Your task to perform on an android device: change notification settings in the gmail app Image 0: 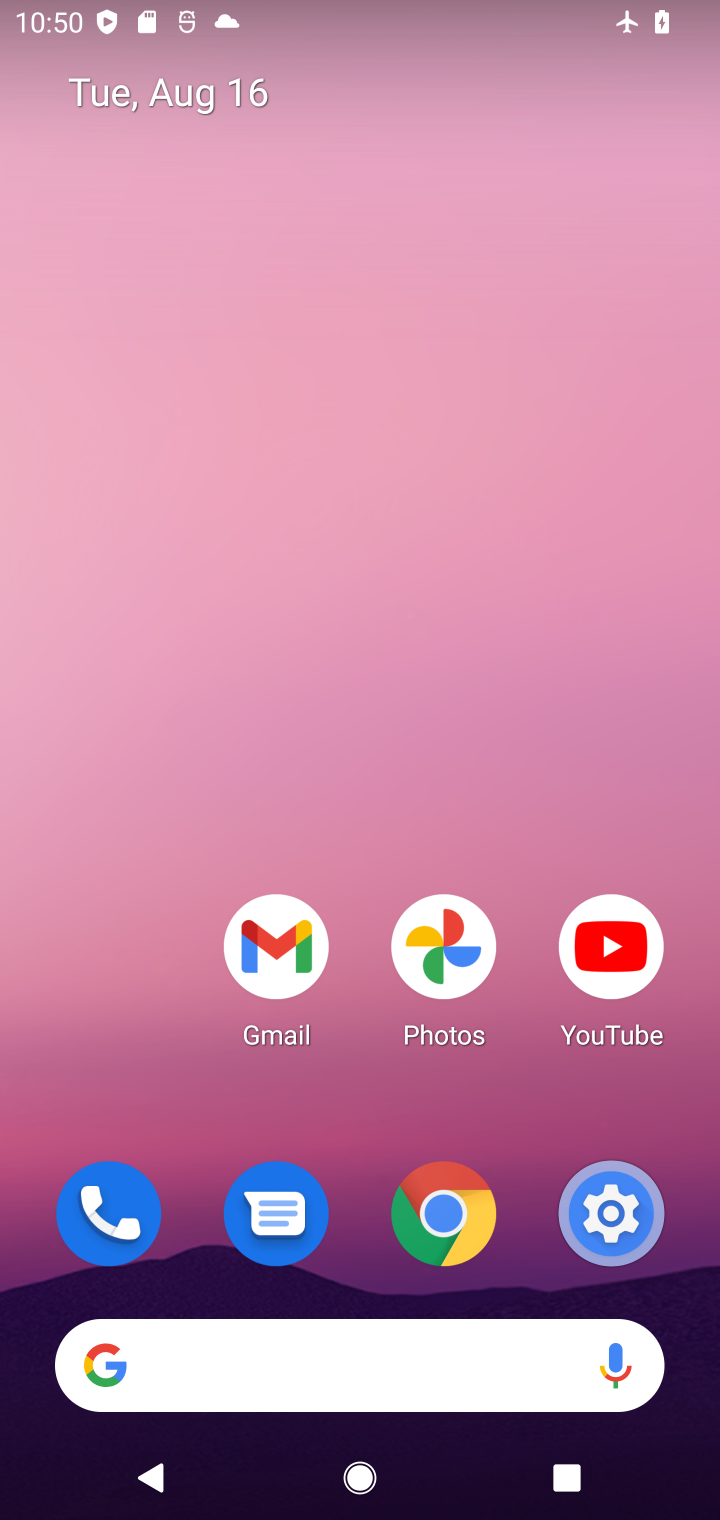
Step 0: drag from (381, 1307) to (347, 192)
Your task to perform on an android device: change notification settings in the gmail app Image 1: 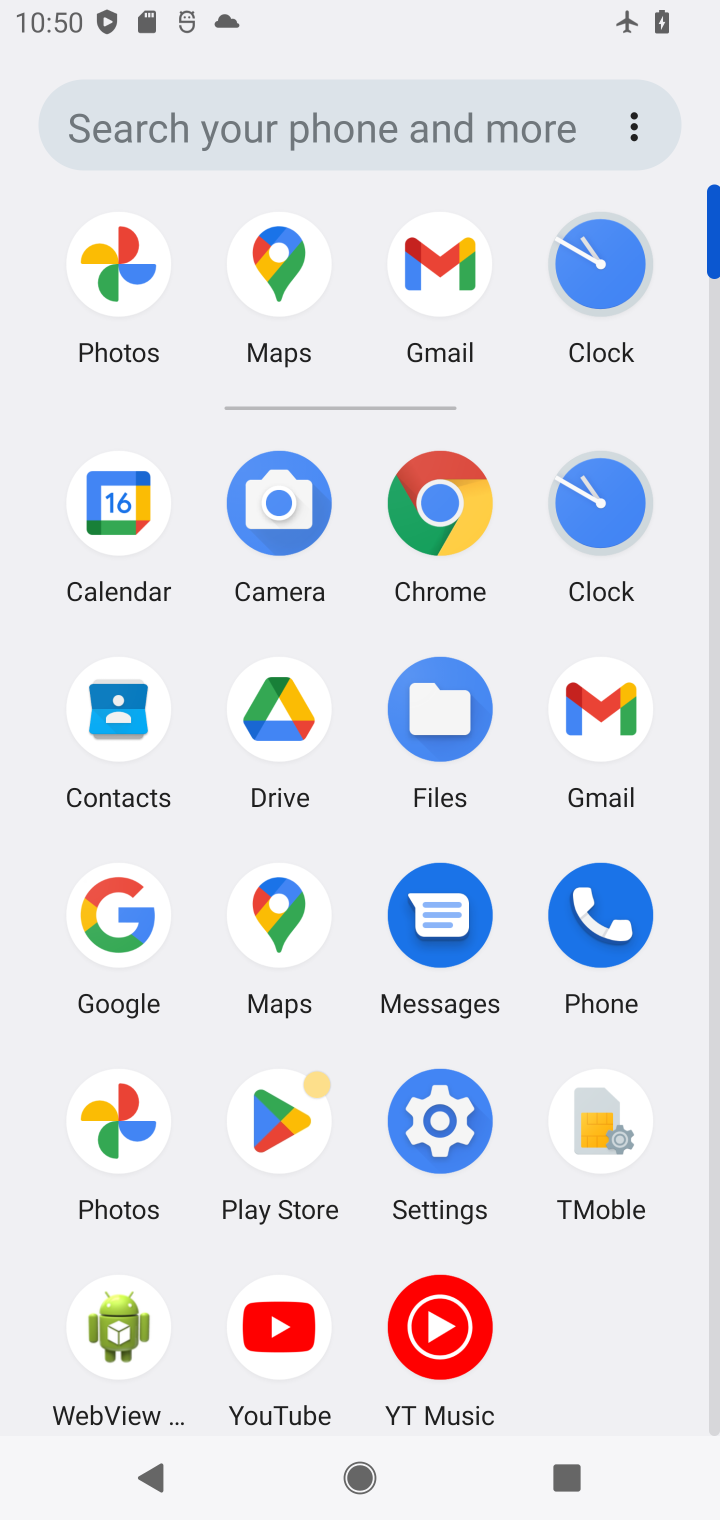
Step 1: click (436, 252)
Your task to perform on an android device: change notification settings in the gmail app Image 2: 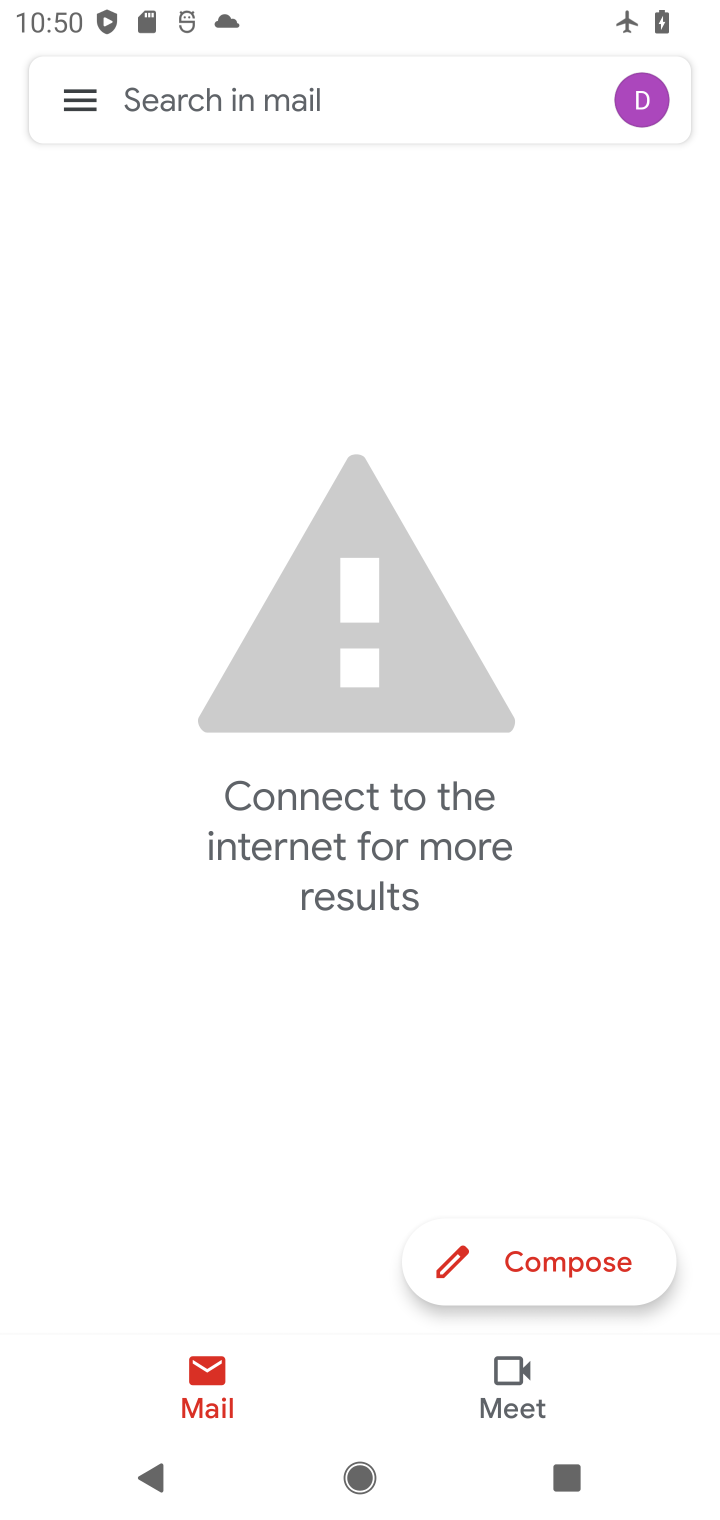
Step 2: click (55, 99)
Your task to perform on an android device: change notification settings in the gmail app Image 3: 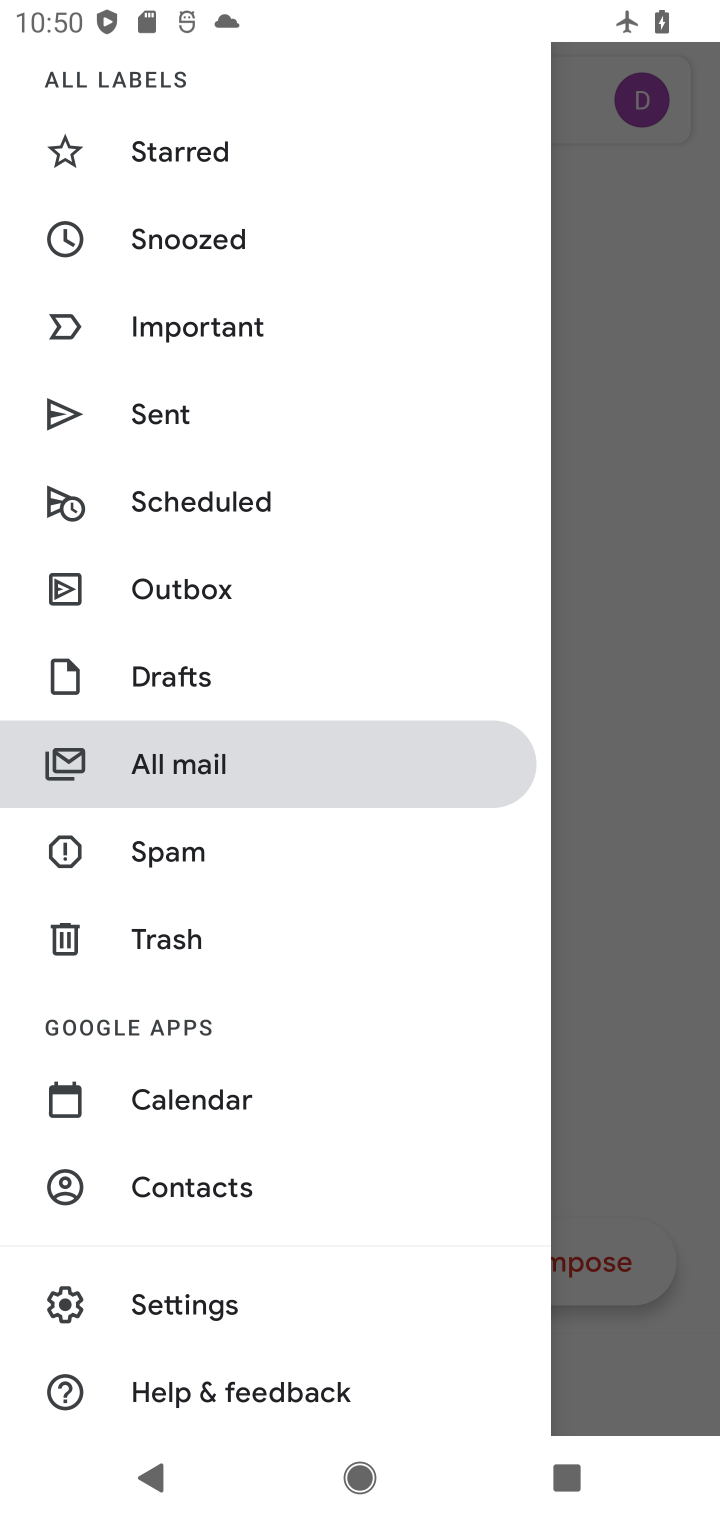
Step 3: click (194, 1272)
Your task to perform on an android device: change notification settings in the gmail app Image 4: 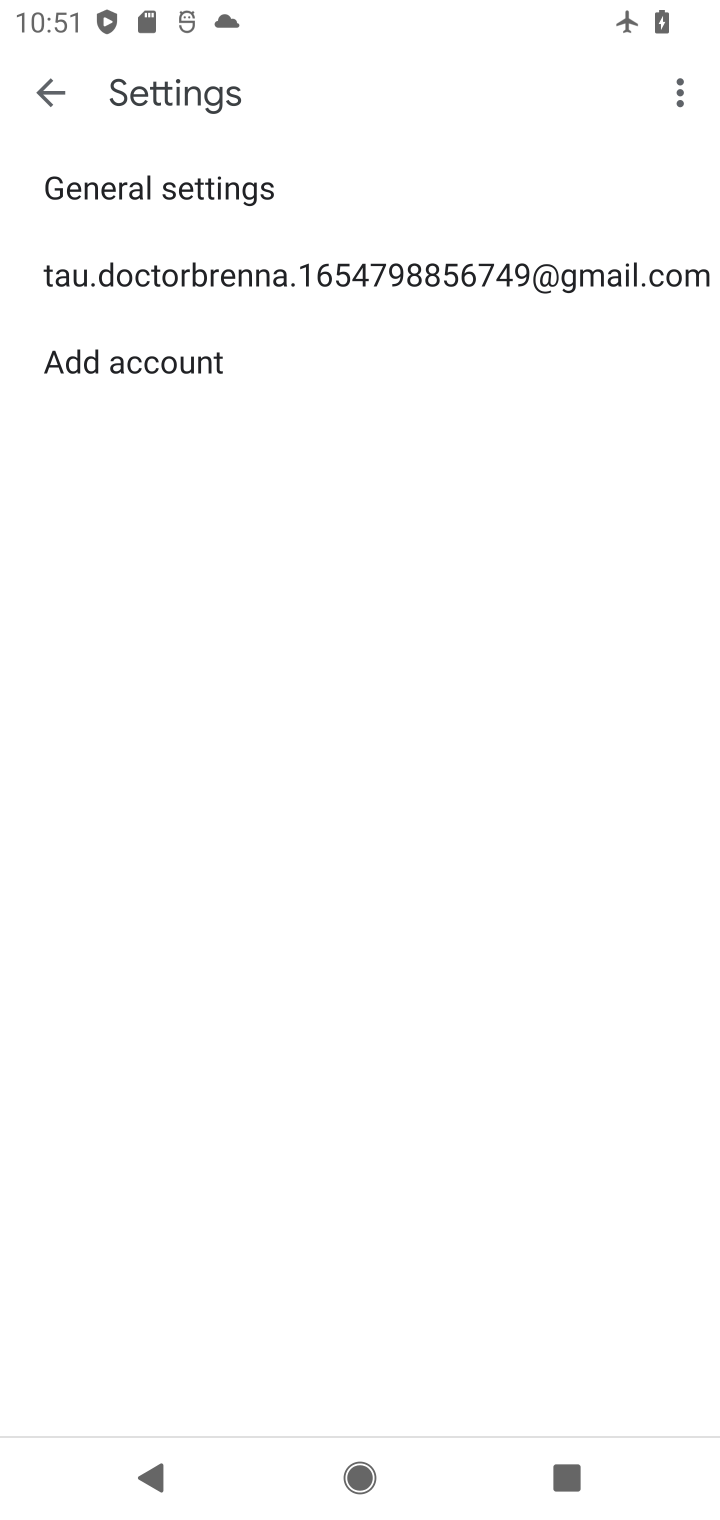
Step 4: click (256, 269)
Your task to perform on an android device: change notification settings in the gmail app Image 5: 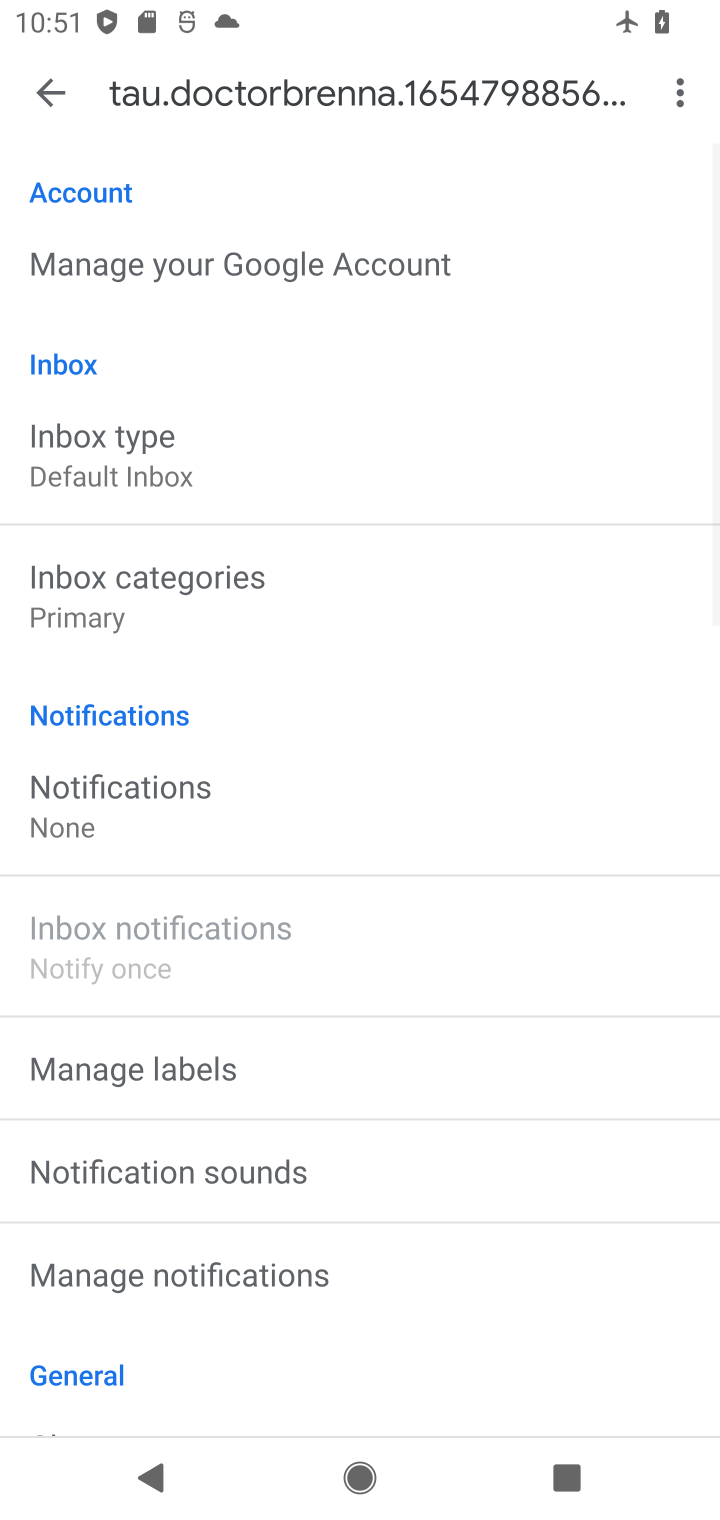
Step 5: click (86, 819)
Your task to perform on an android device: change notification settings in the gmail app Image 6: 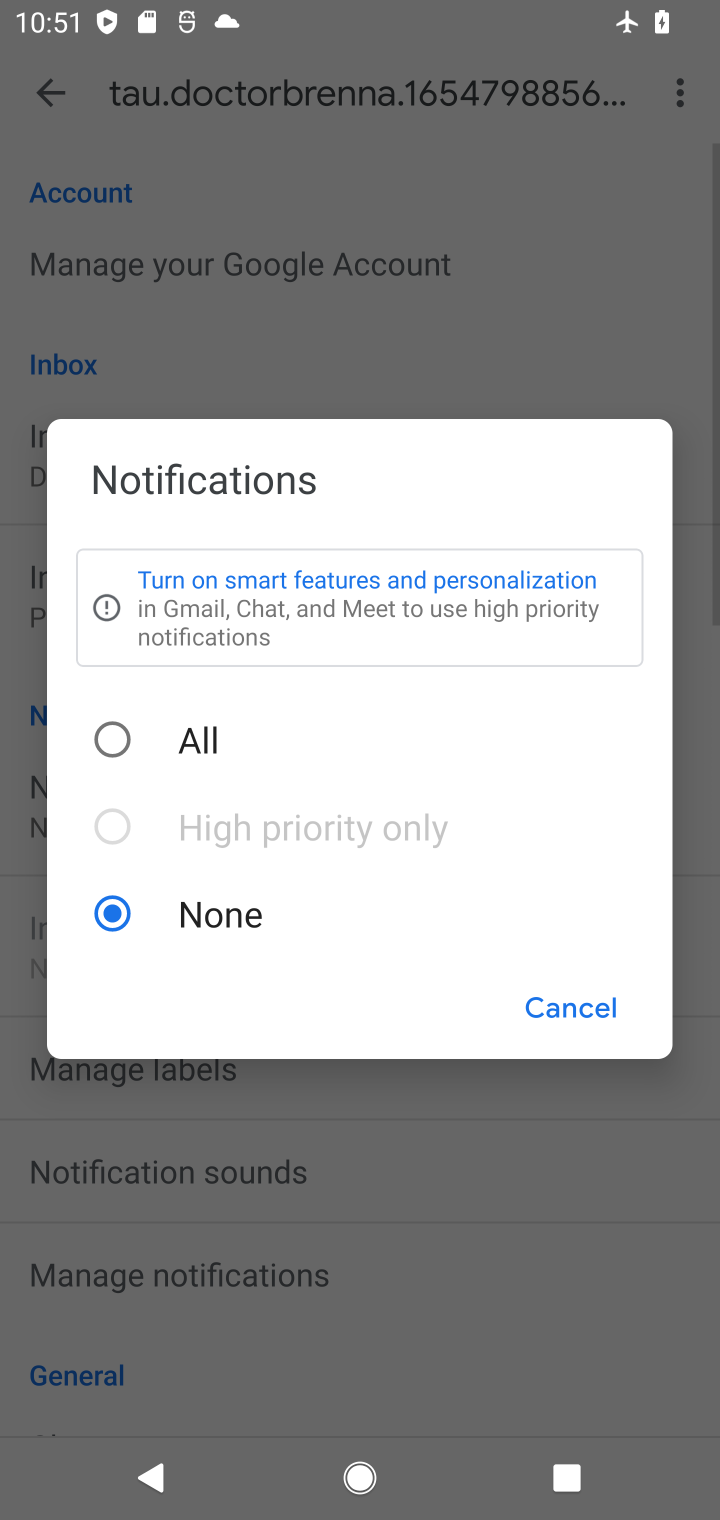
Step 6: click (196, 718)
Your task to perform on an android device: change notification settings in the gmail app Image 7: 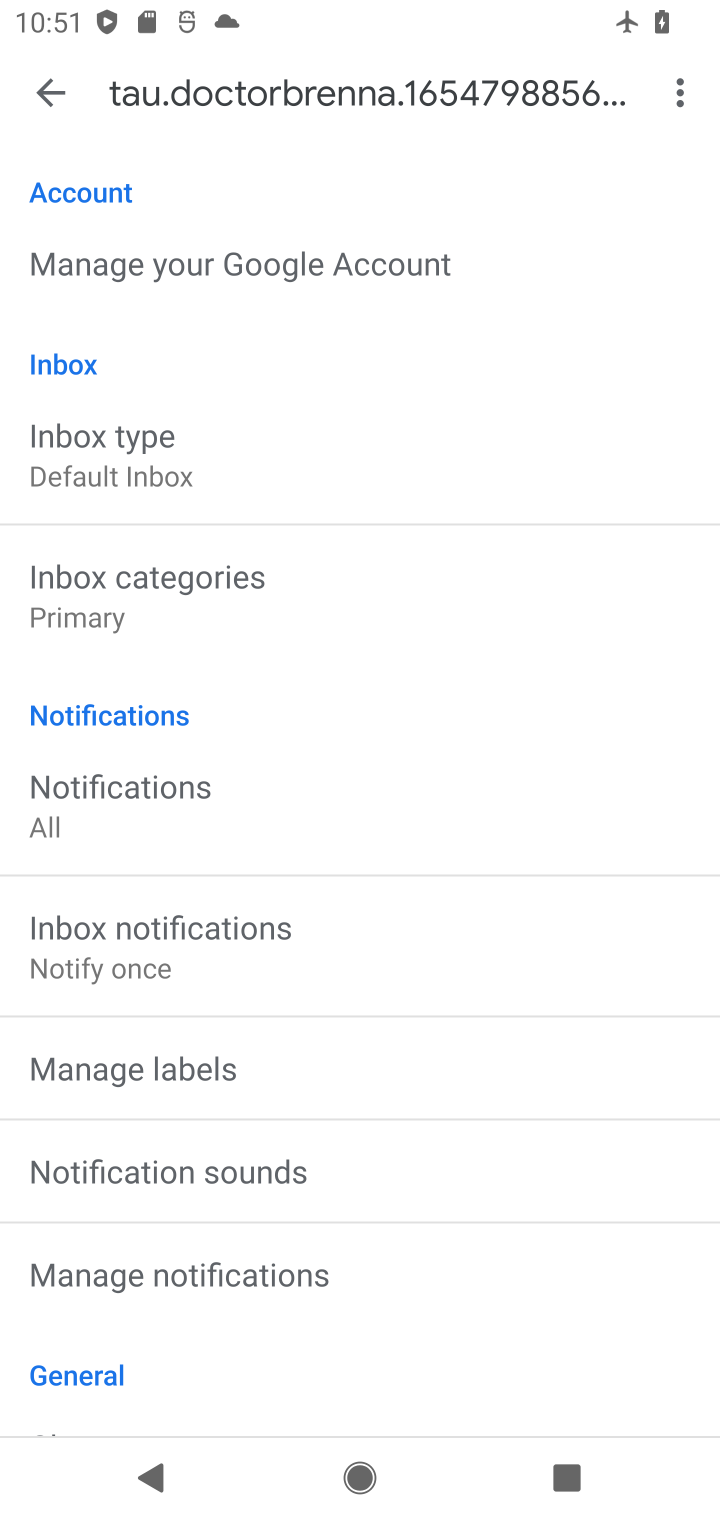
Step 7: task complete